Your task to perform on an android device: Open settings Image 0: 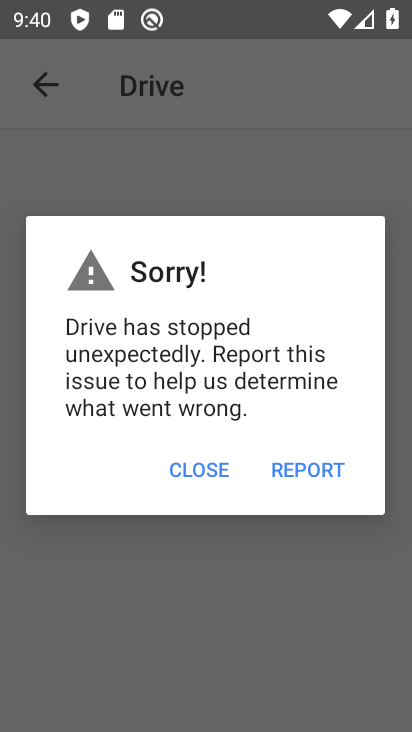
Step 0: task complete